Your task to perform on an android device: turn off wifi Image 0: 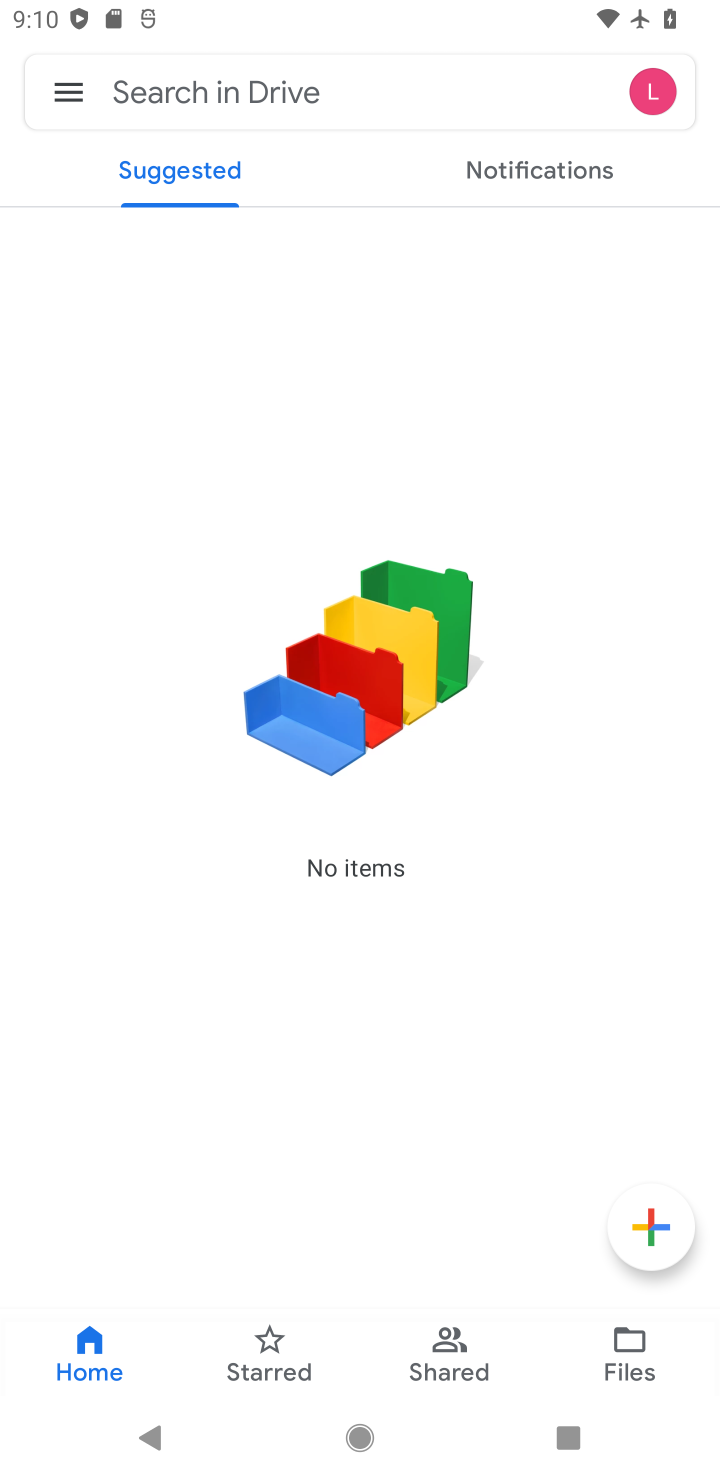
Step 0: press home button
Your task to perform on an android device: turn off wifi Image 1: 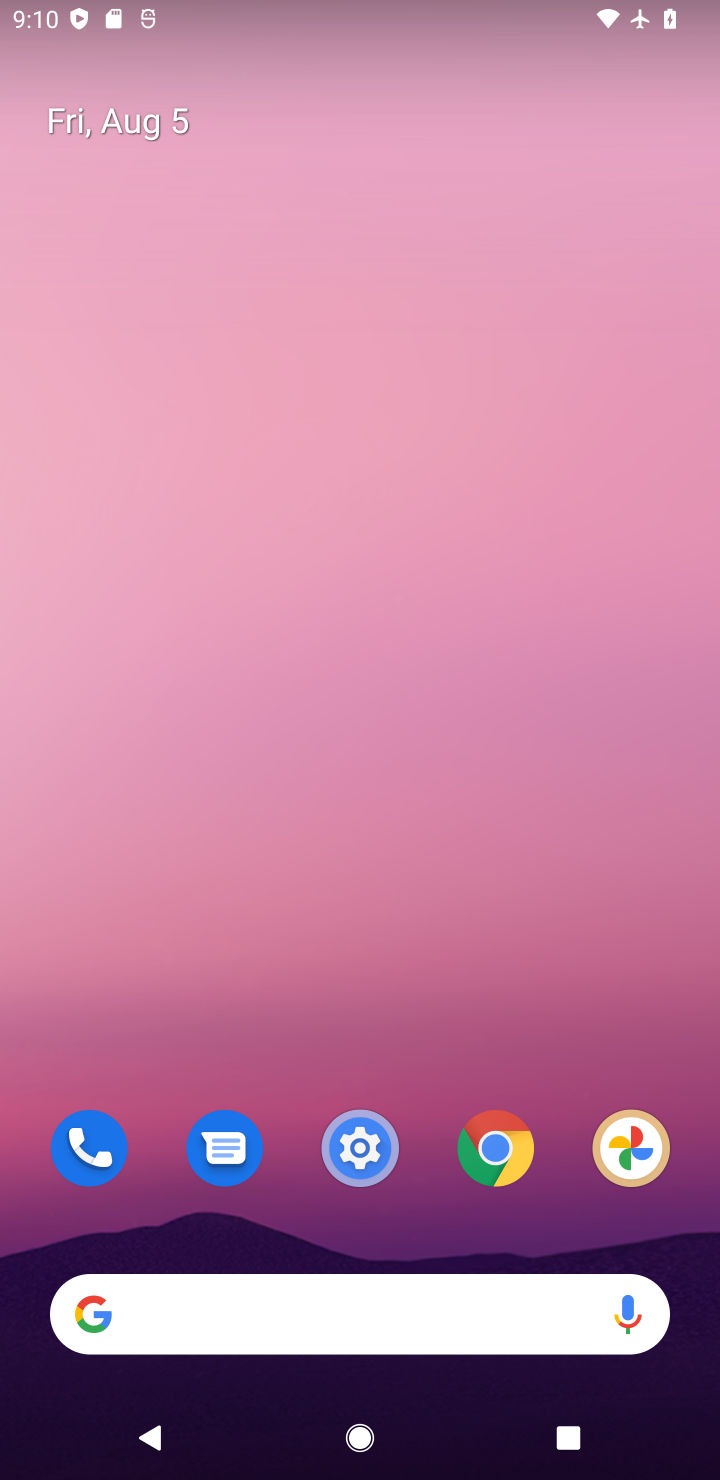
Step 1: drag from (436, 1227) to (421, 295)
Your task to perform on an android device: turn off wifi Image 2: 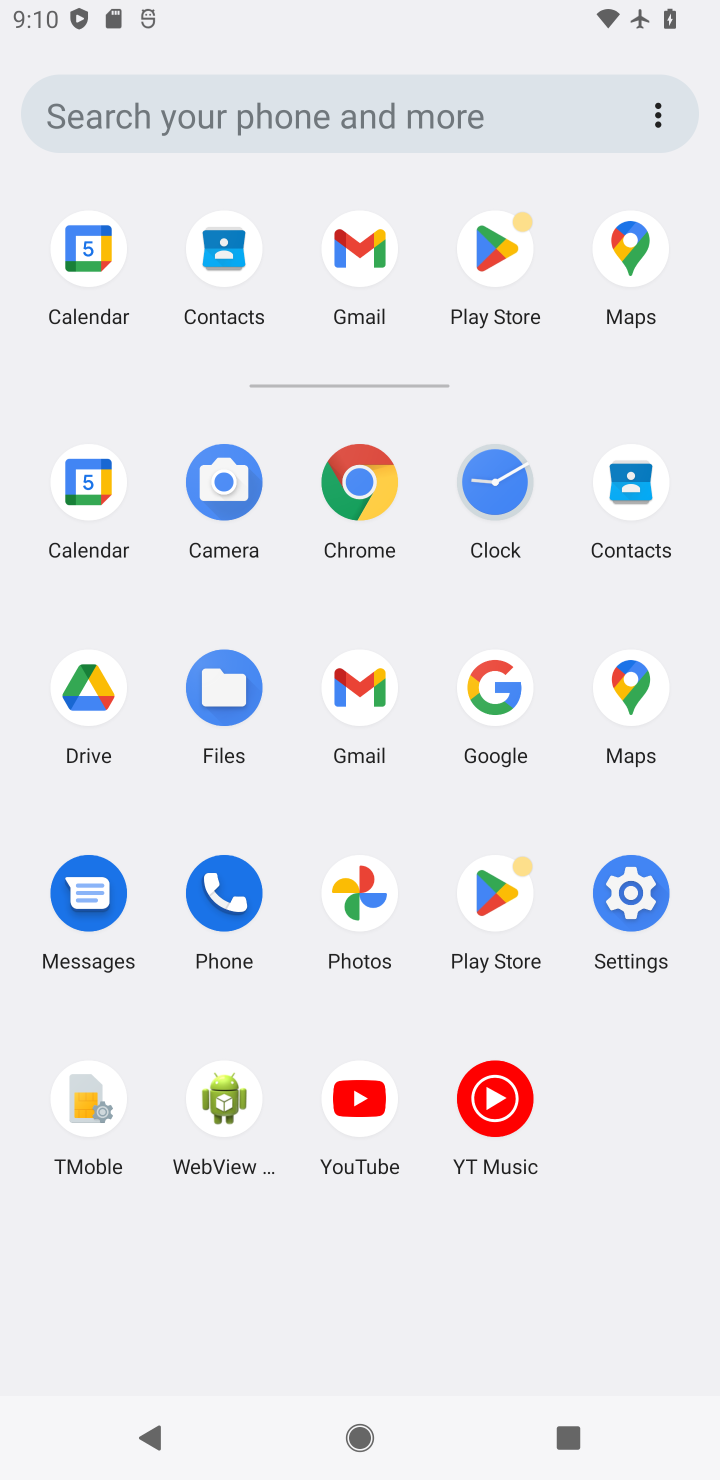
Step 2: click (615, 906)
Your task to perform on an android device: turn off wifi Image 3: 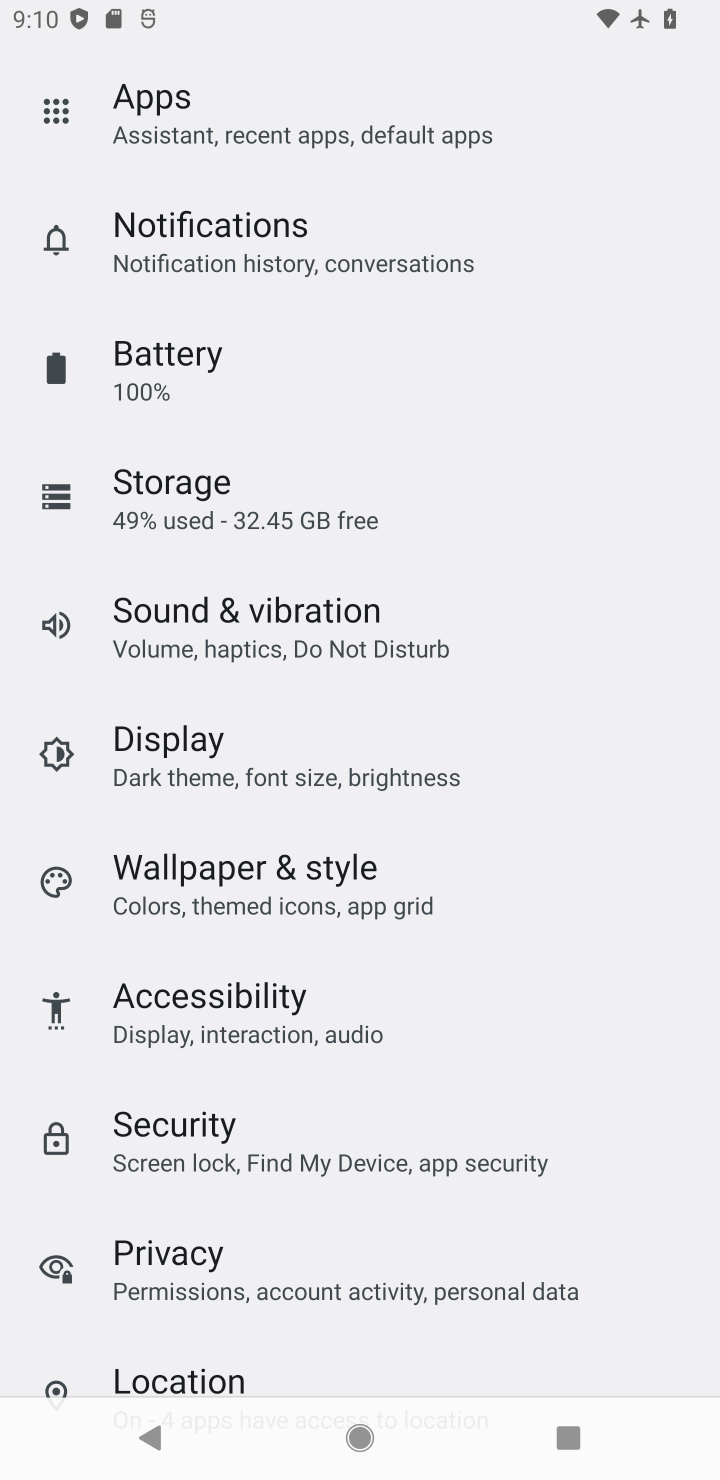
Step 3: drag from (254, 523) to (267, 1054)
Your task to perform on an android device: turn off wifi Image 4: 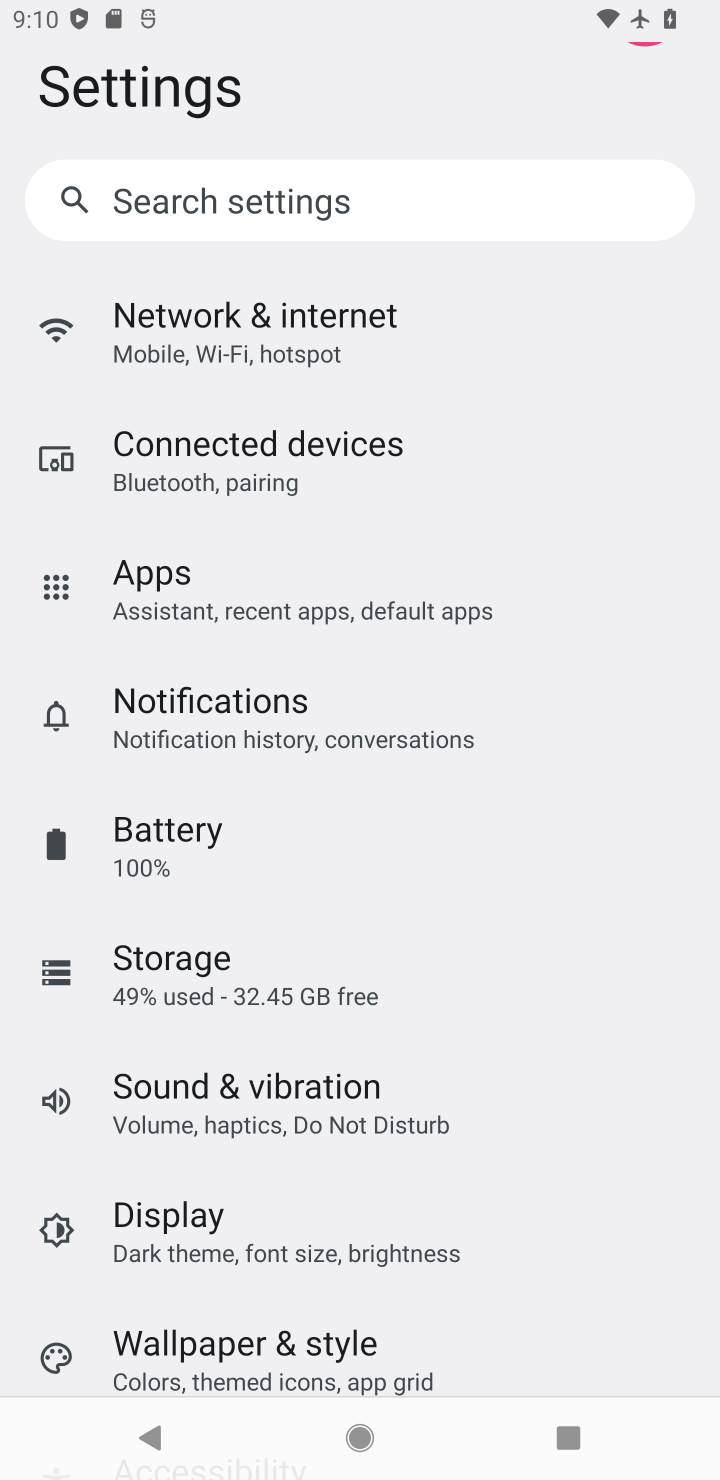
Step 4: click (242, 238)
Your task to perform on an android device: turn off wifi Image 5: 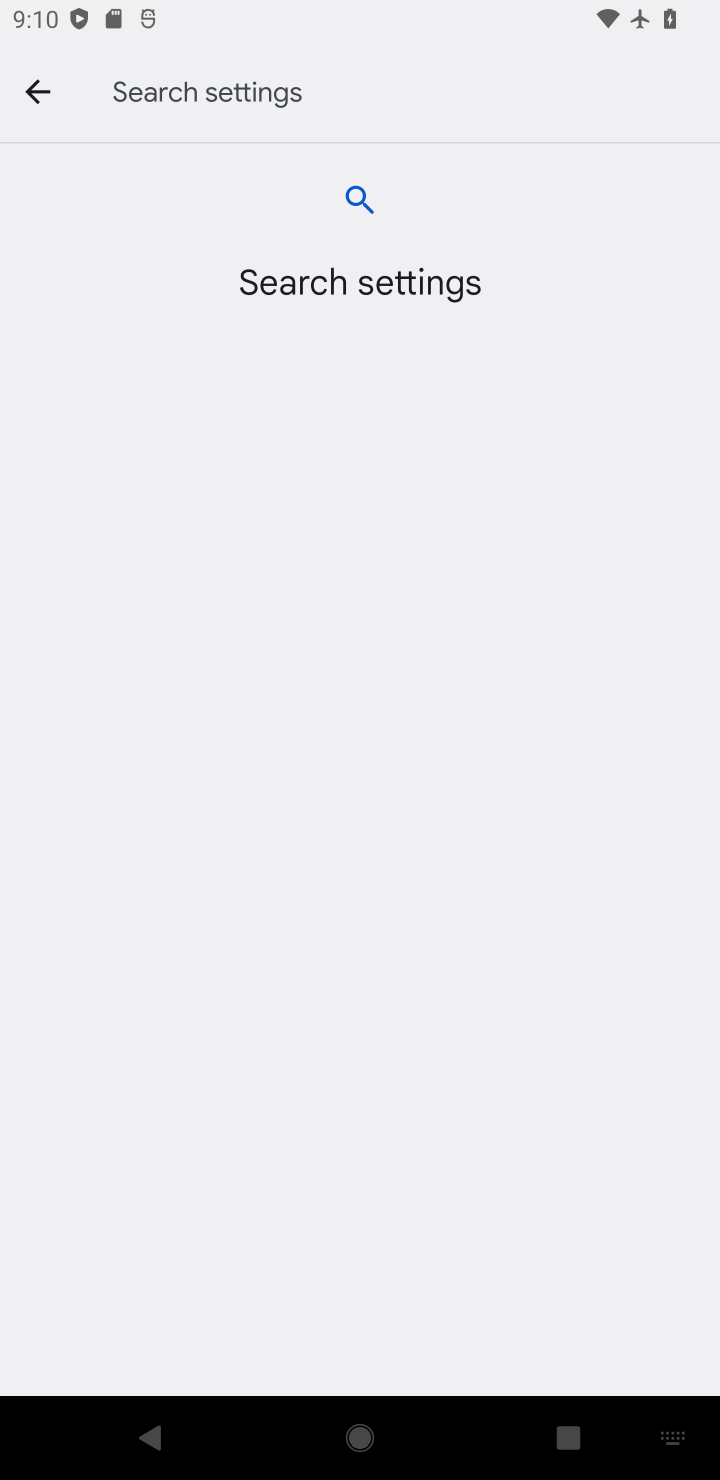
Step 5: task complete